Your task to perform on an android device: When is my next meeting? Image 0: 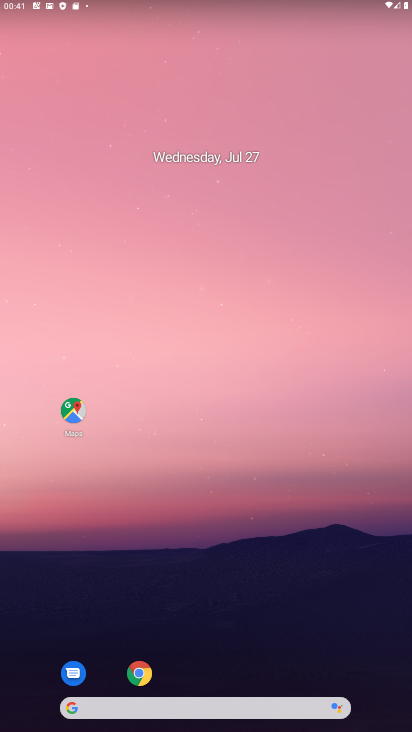
Step 0: drag from (220, 678) to (216, 161)
Your task to perform on an android device: When is my next meeting? Image 1: 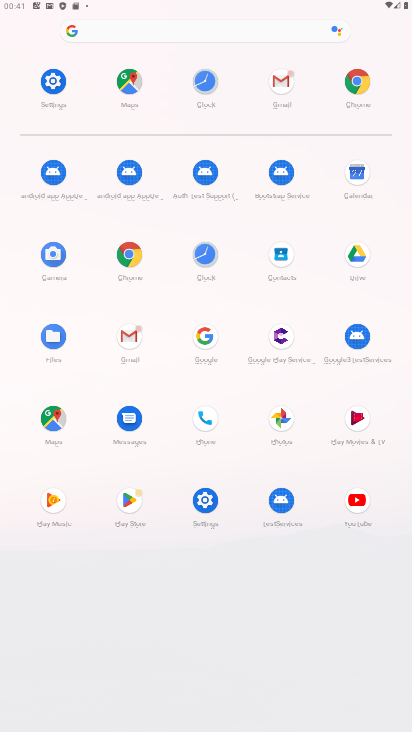
Step 1: click (352, 167)
Your task to perform on an android device: When is my next meeting? Image 2: 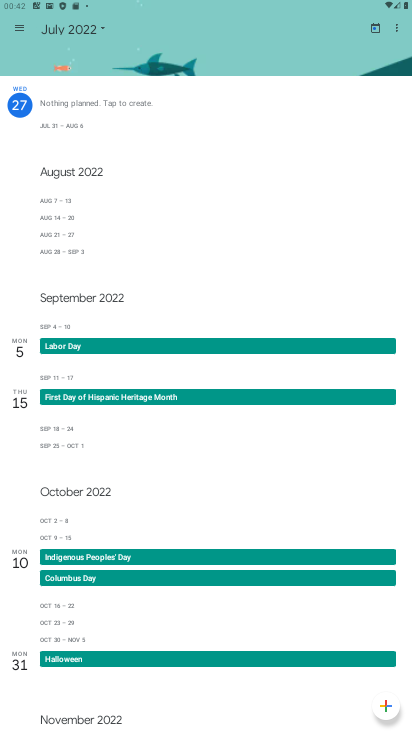
Step 2: click (27, 26)
Your task to perform on an android device: When is my next meeting? Image 3: 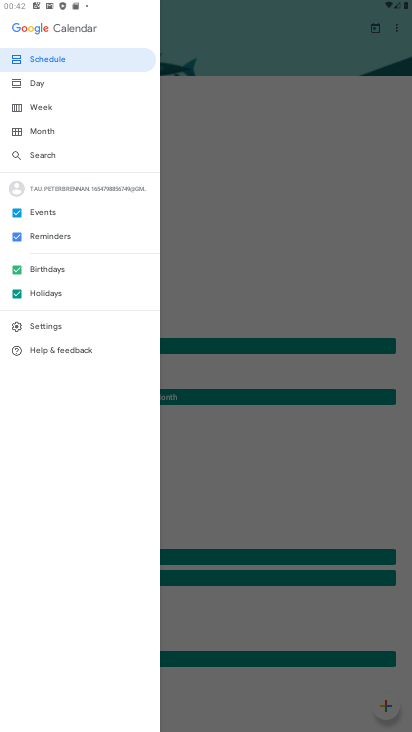
Step 3: click (33, 121)
Your task to perform on an android device: When is my next meeting? Image 4: 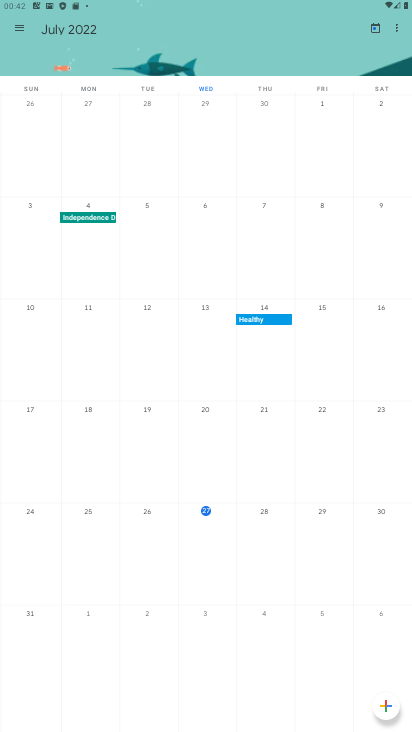
Step 4: click (273, 517)
Your task to perform on an android device: When is my next meeting? Image 5: 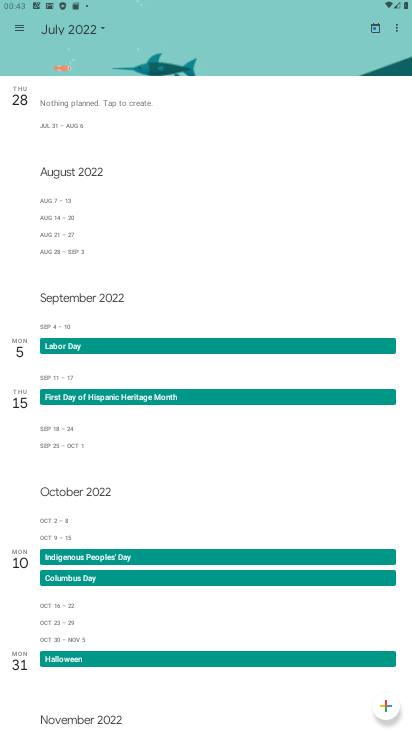
Step 5: task complete